Your task to perform on an android device: Go to Wikipedia Image 0: 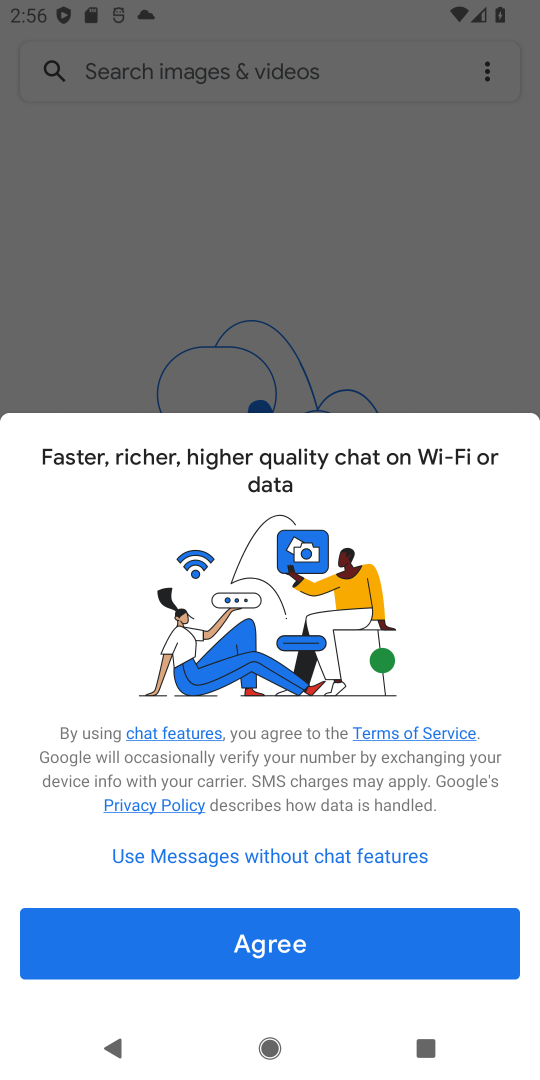
Step 0: press back button
Your task to perform on an android device: Go to Wikipedia Image 1: 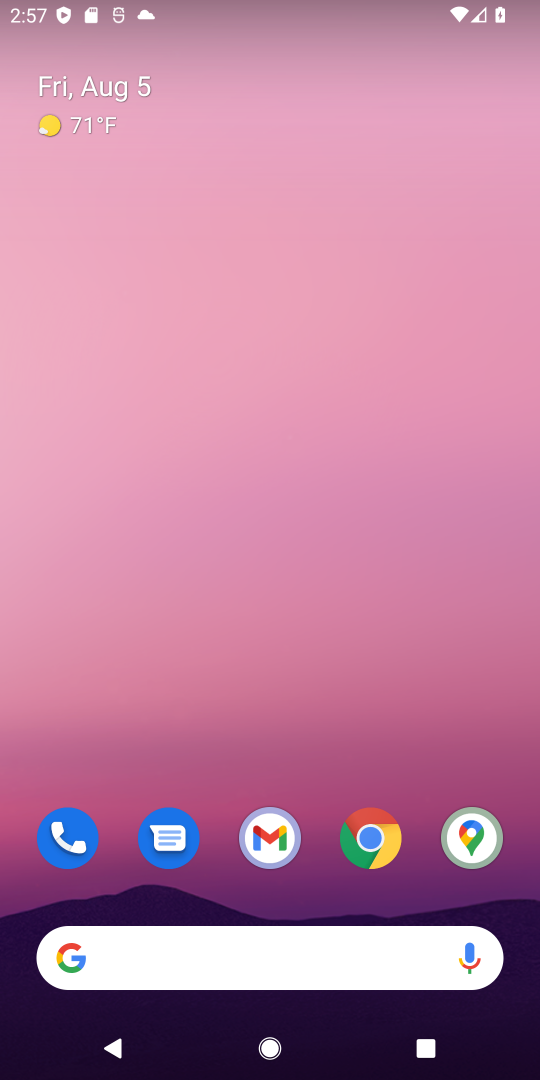
Step 1: click (374, 864)
Your task to perform on an android device: Go to Wikipedia Image 2: 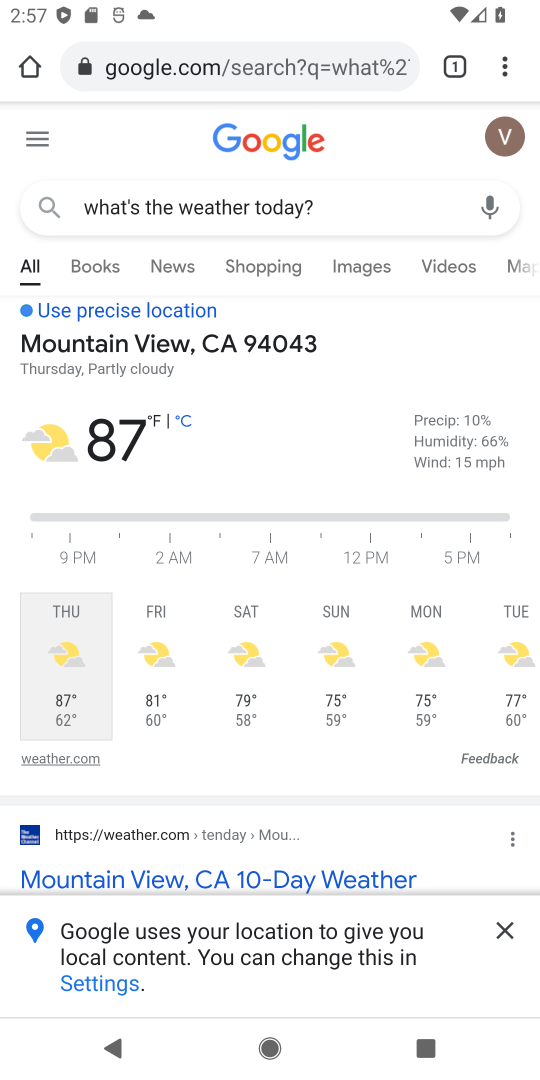
Step 2: click (458, 69)
Your task to perform on an android device: Go to Wikipedia Image 3: 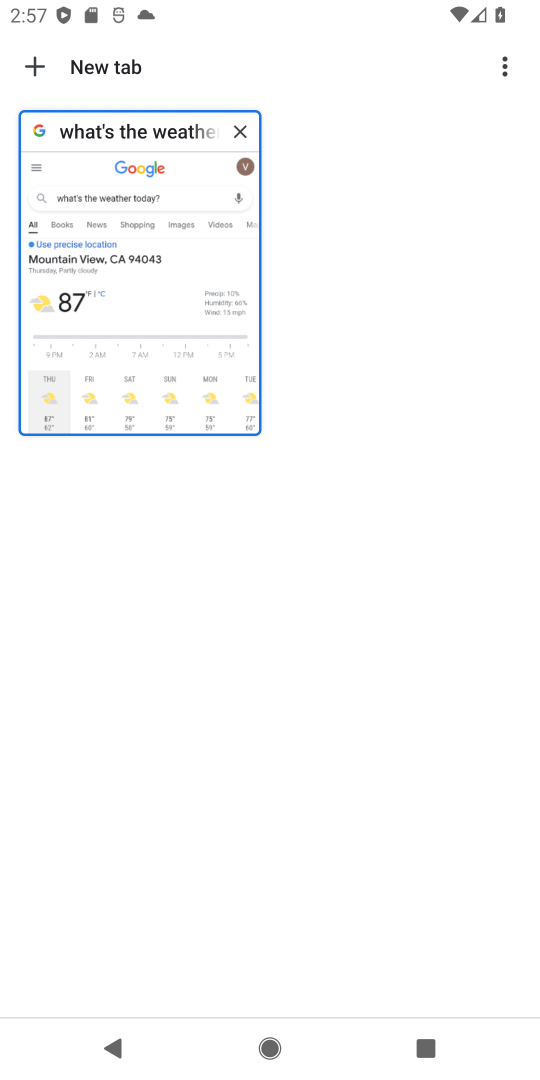
Step 3: click (110, 76)
Your task to perform on an android device: Go to Wikipedia Image 4: 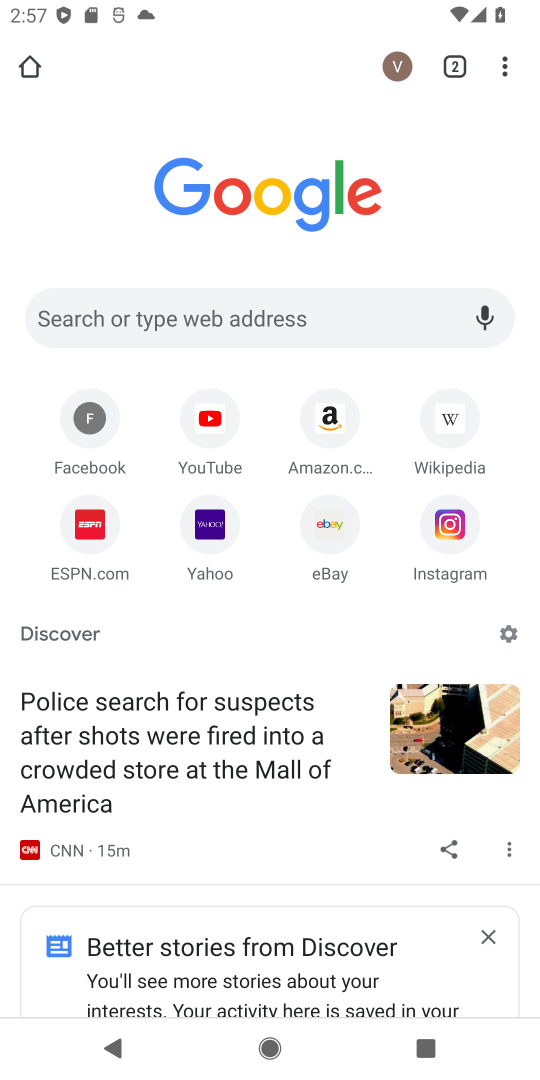
Step 4: click (432, 436)
Your task to perform on an android device: Go to Wikipedia Image 5: 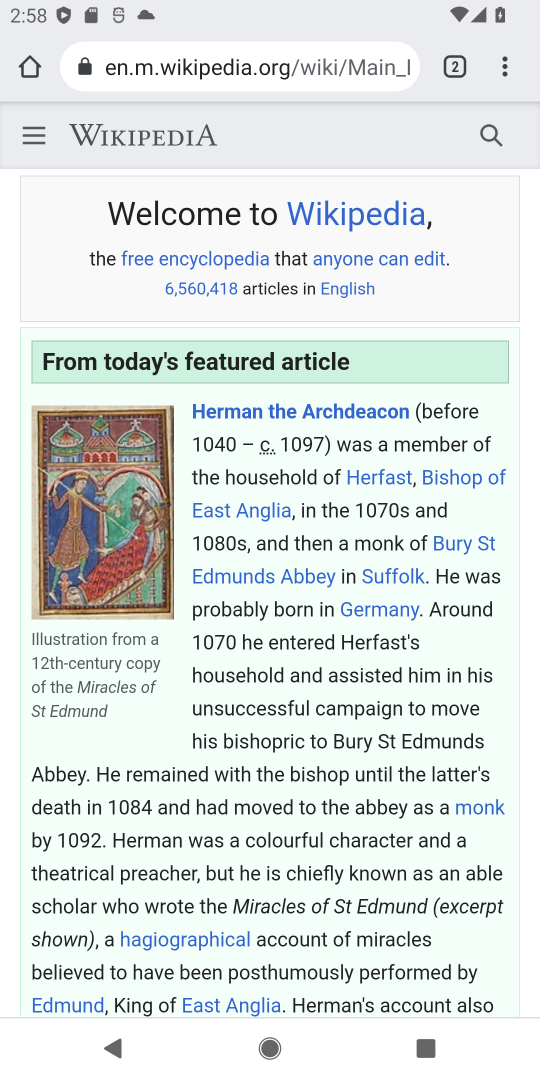
Step 5: task complete